Your task to perform on an android device: Open the web browser Image 0: 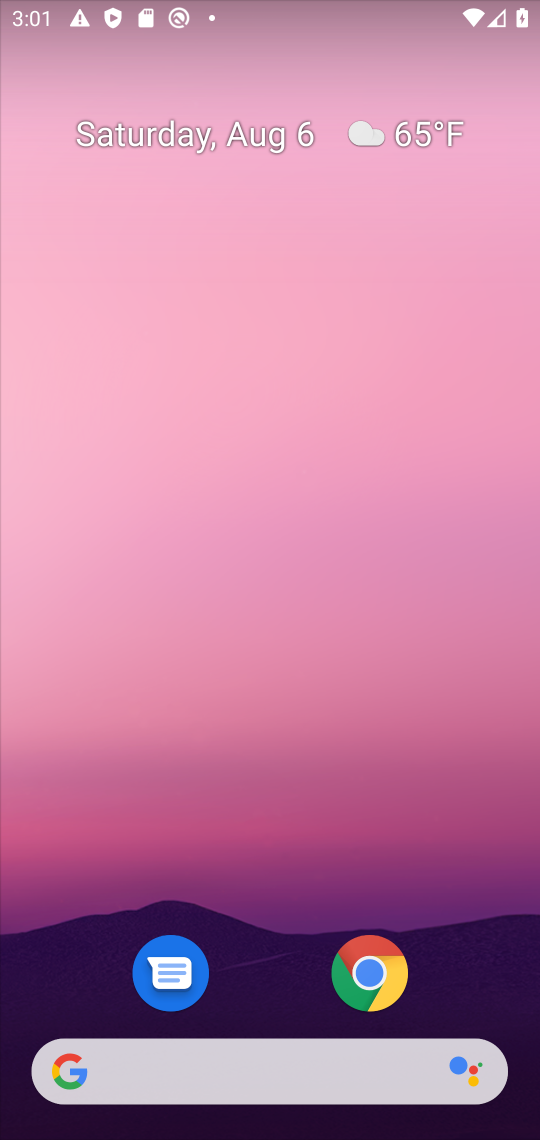
Step 0: click (367, 980)
Your task to perform on an android device: Open the web browser Image 1: 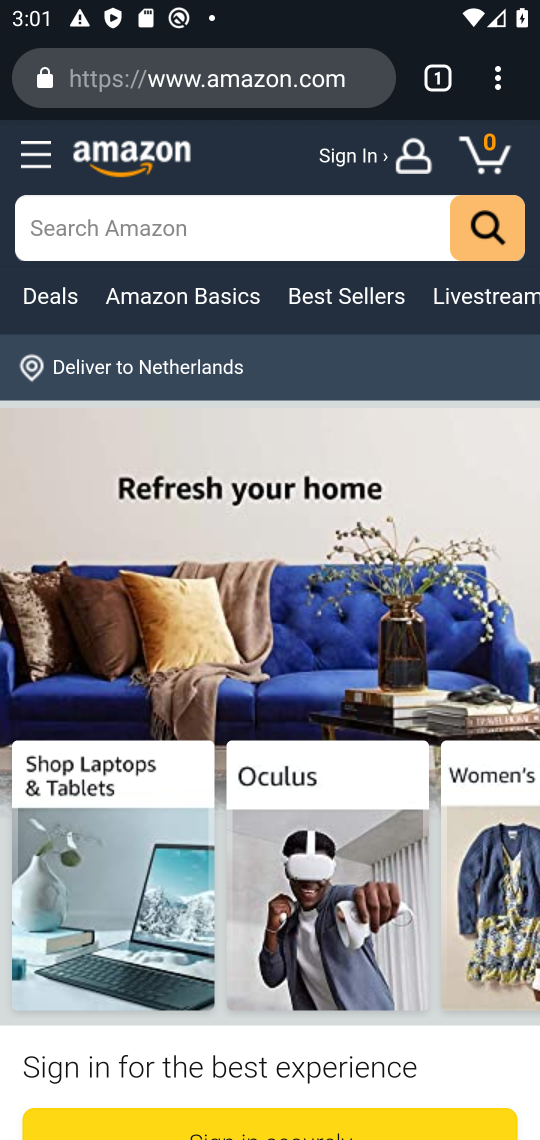
Step 1: task complete